Your task to perform on an android device: Go to location settings Image 0: 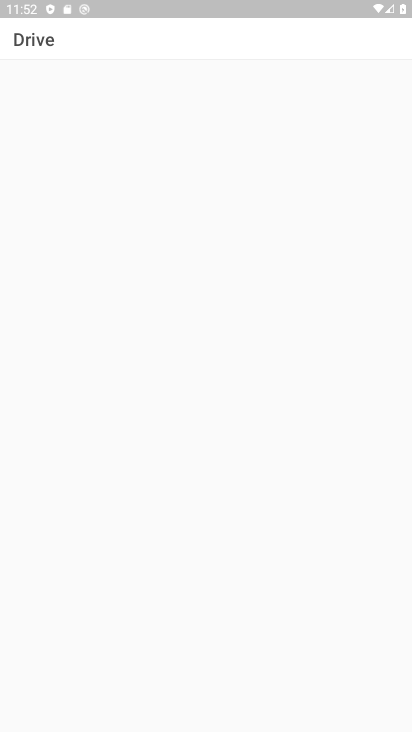
Step 0: press home button
Your task to perform on an android device: Go to location settings Image 1: 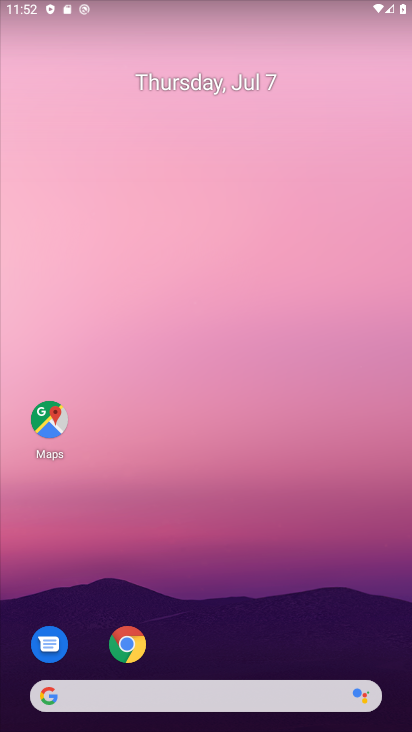
Step 1: drag from (236, 634) to (231, 13)
Your task to perform on an android device: Go to location settings Image 2: 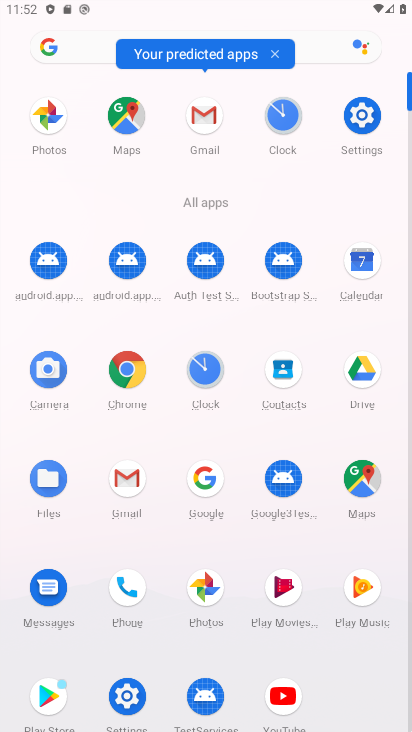
Step 2: click (137, 690)
Your task to perform on an android device: Go to location settings Image 3: 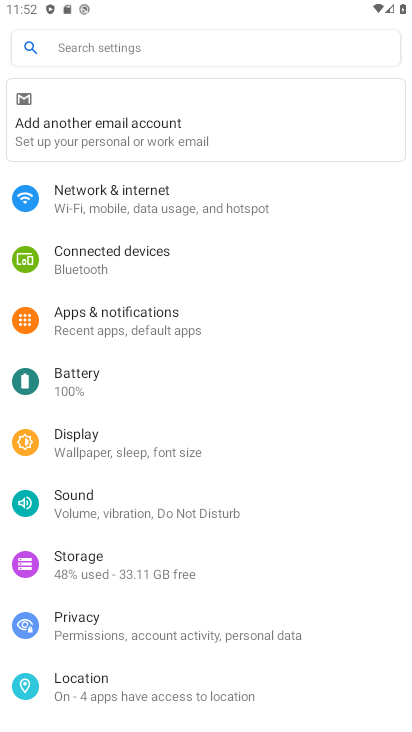
Step 3: click (105, 683)
Your task to perform on an android device: Go to location settings Image 4: 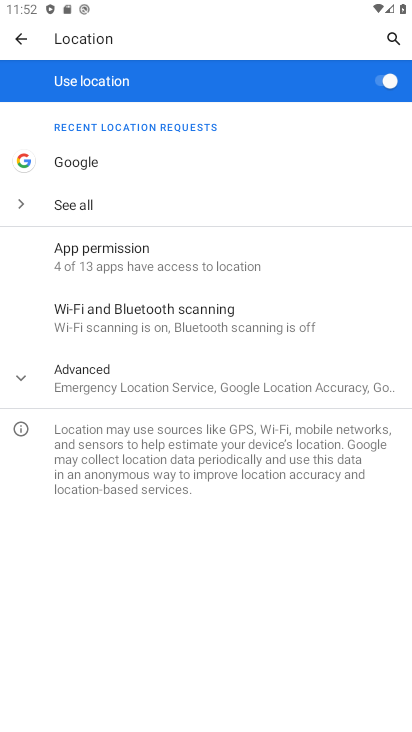
Step 4: task complete